Your task to perform on an android device: Open my contact list Image 0: 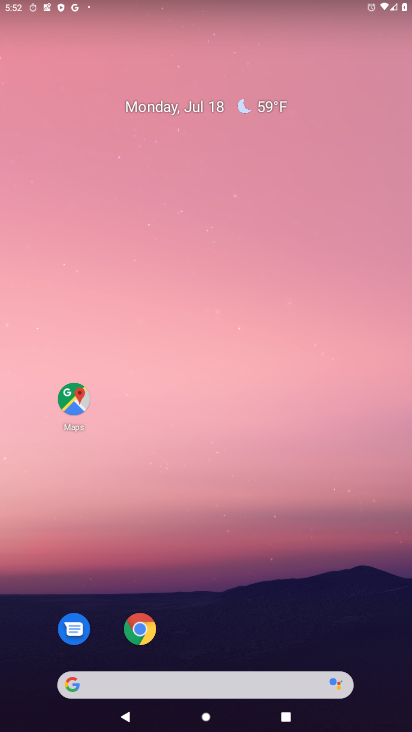
Step 0: drag from (263, 588) to (231, 117)
Your task to perform on an android device: Open my contact list Image 1: 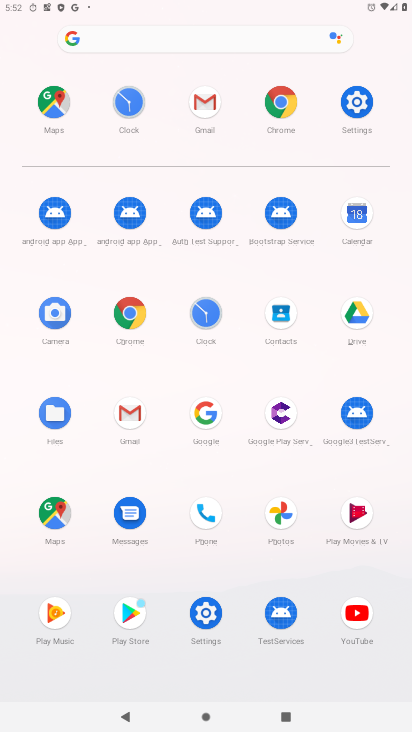
Step 1: click (283, 311)
Your task to perform on an android device: Open my contact list Image 2: 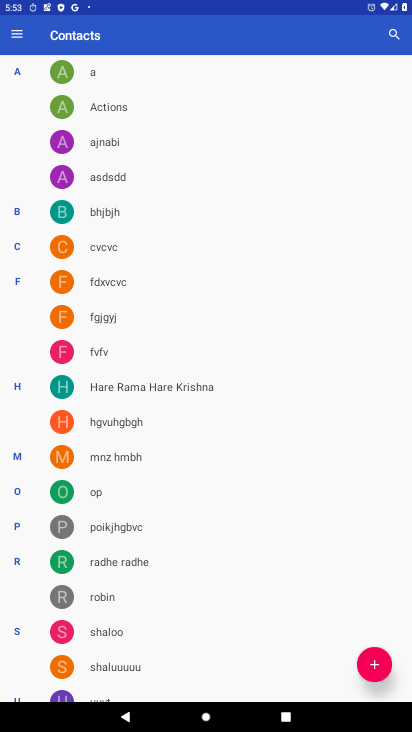
Step 2: task complete